Your task to perform on an android device: choose inbox layout in the gmail app Image 0: 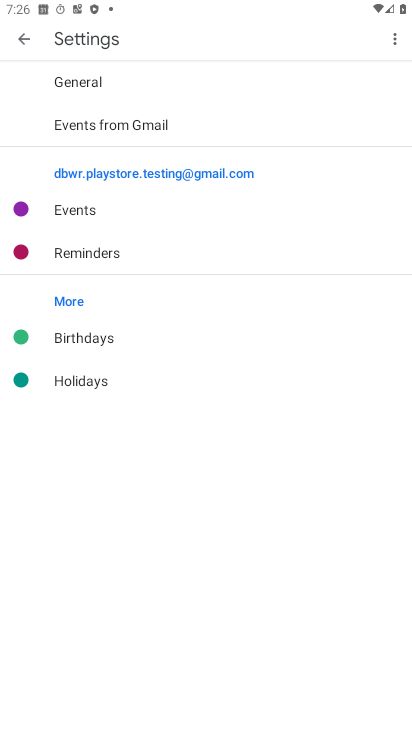
Step 0: press home button
Your task to perform on an android device: choose inbox layout in the gmail app Image 1: 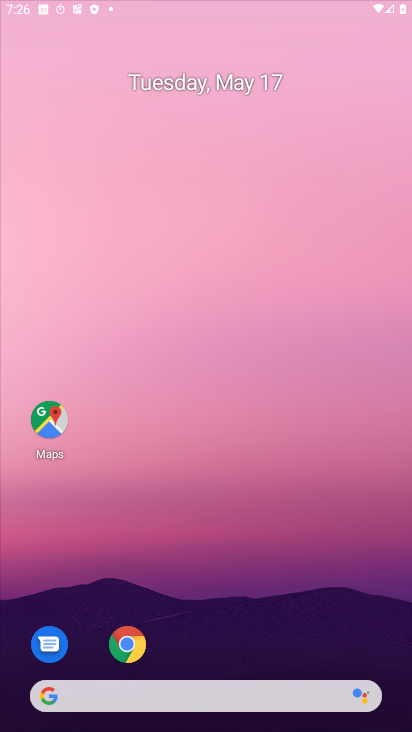
Step 1: drag from (324, 636) to (300, 68)
Your task to perform on an android device: choose inbox layout in the gmail app Image 2: 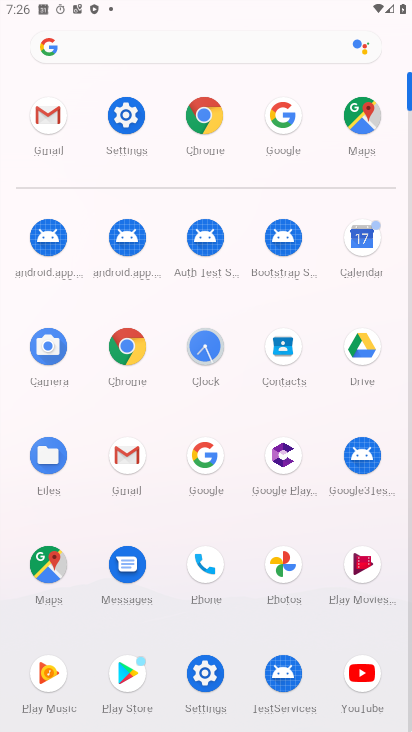
Step 2: click (130, 468)
Your task to perform on an android device: choose inbox layout in the gmail app Image 3: 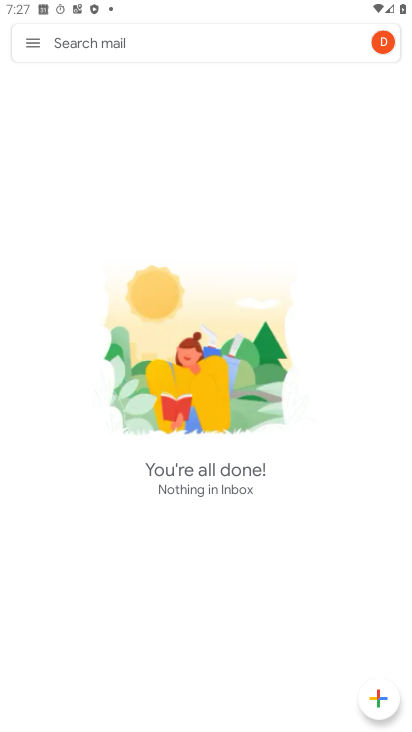
Step 3: task complete